Your task to perform on an android device: turn off wifi Image 0: 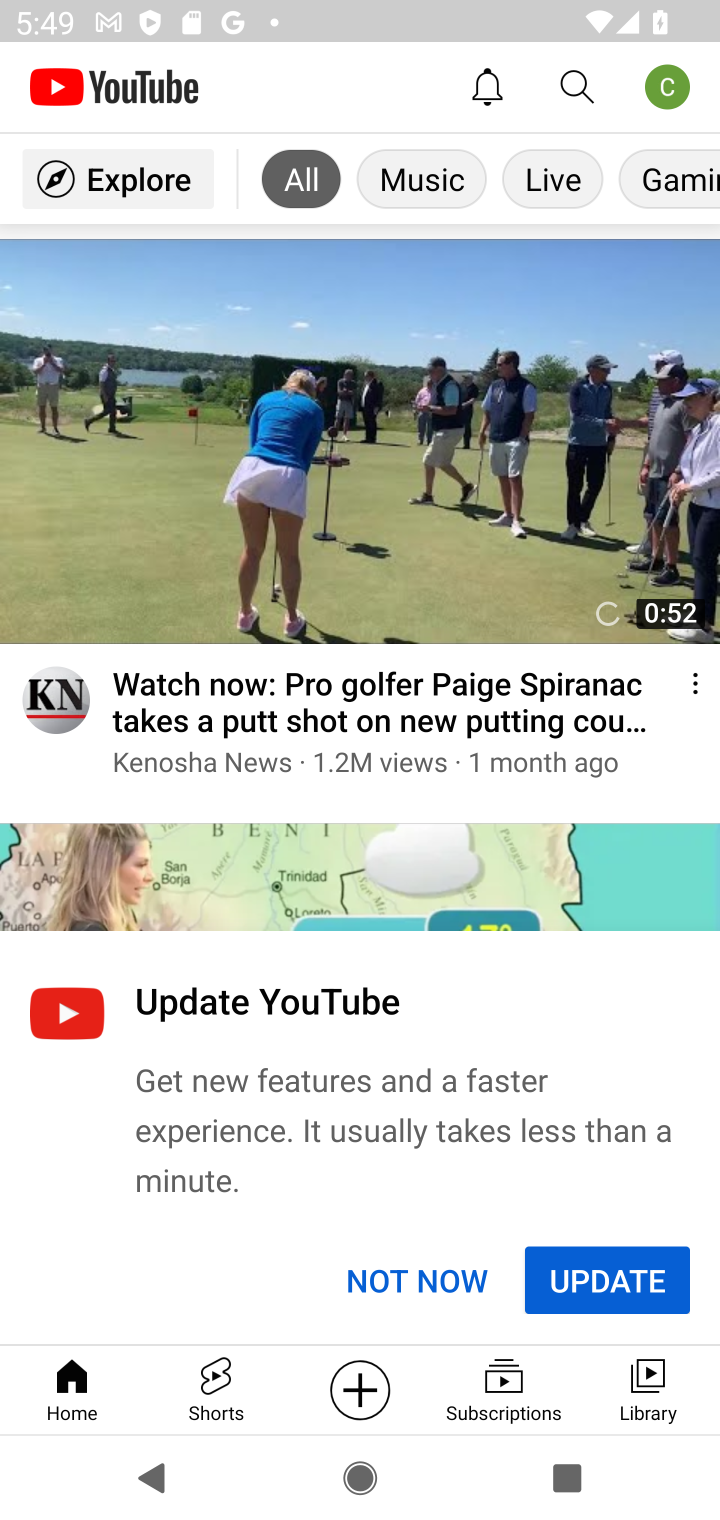
Step 0: press home button
Your task to perform on an android device: turn off wifi Image 1: 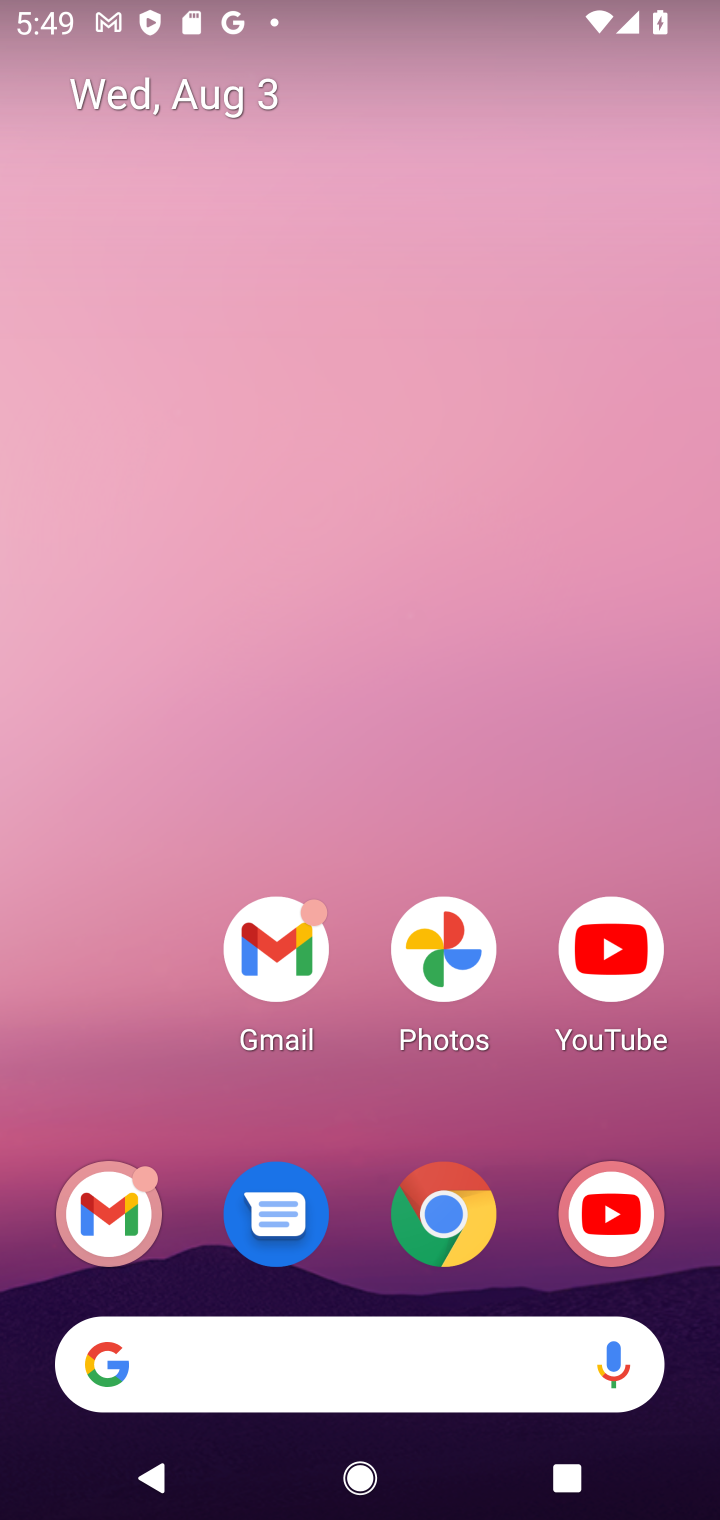
Step 1: drag from (366, 1221) to (442, 63)
Your task to perform on an android device: turn off wifi Image 2: 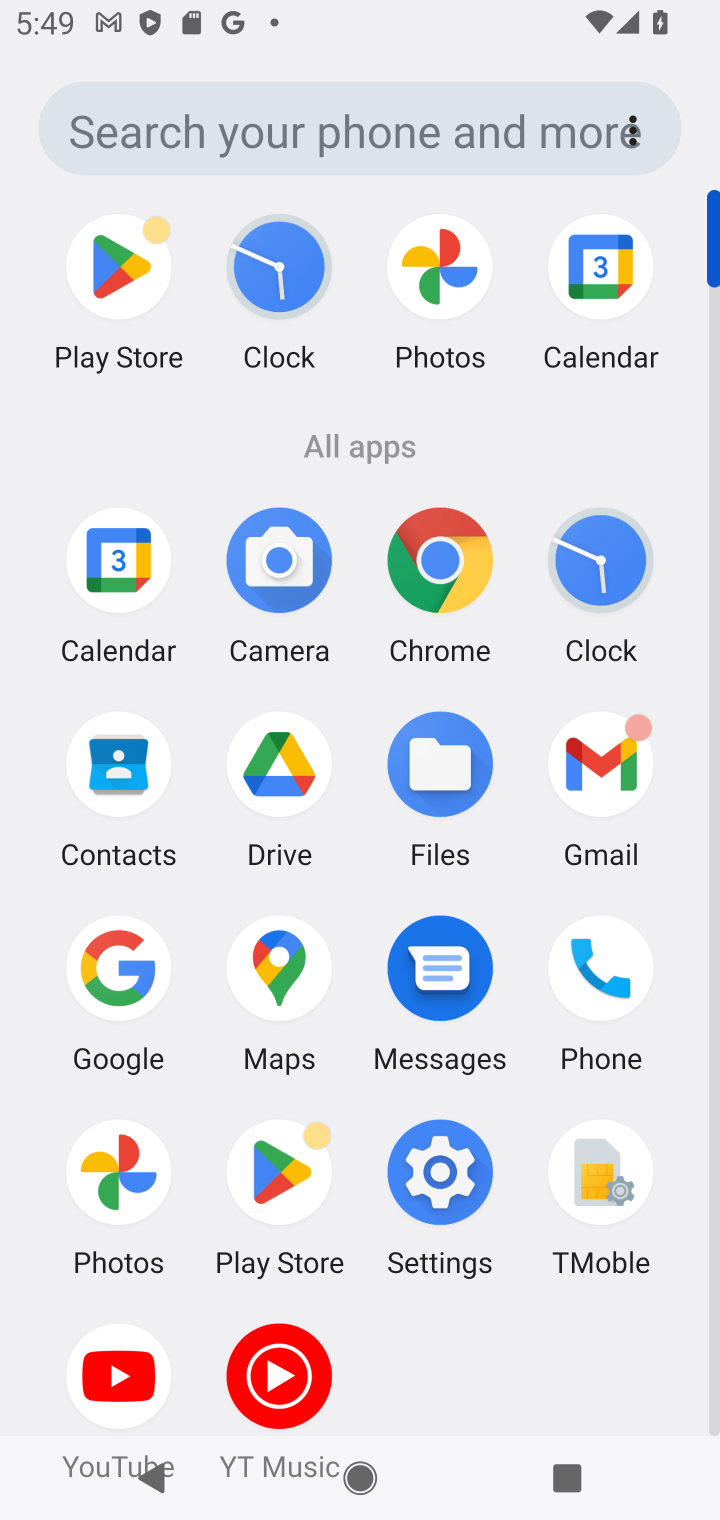
Step 2: click (416, 1146)
Your task to perform on an android device: turn off wifi Image 3: 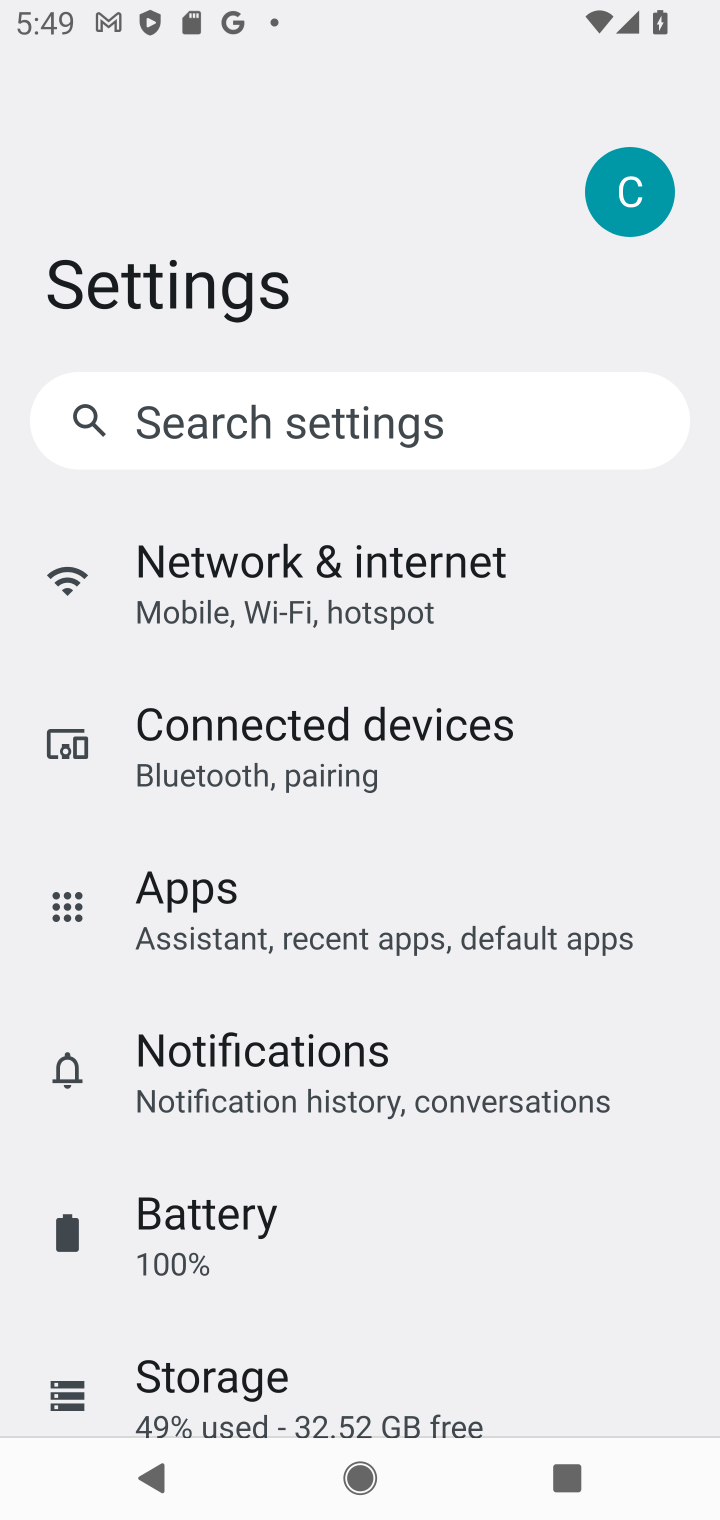
Step 3: click (546, 598)
Your task to perform on an android device: turn off wifi Image 4: 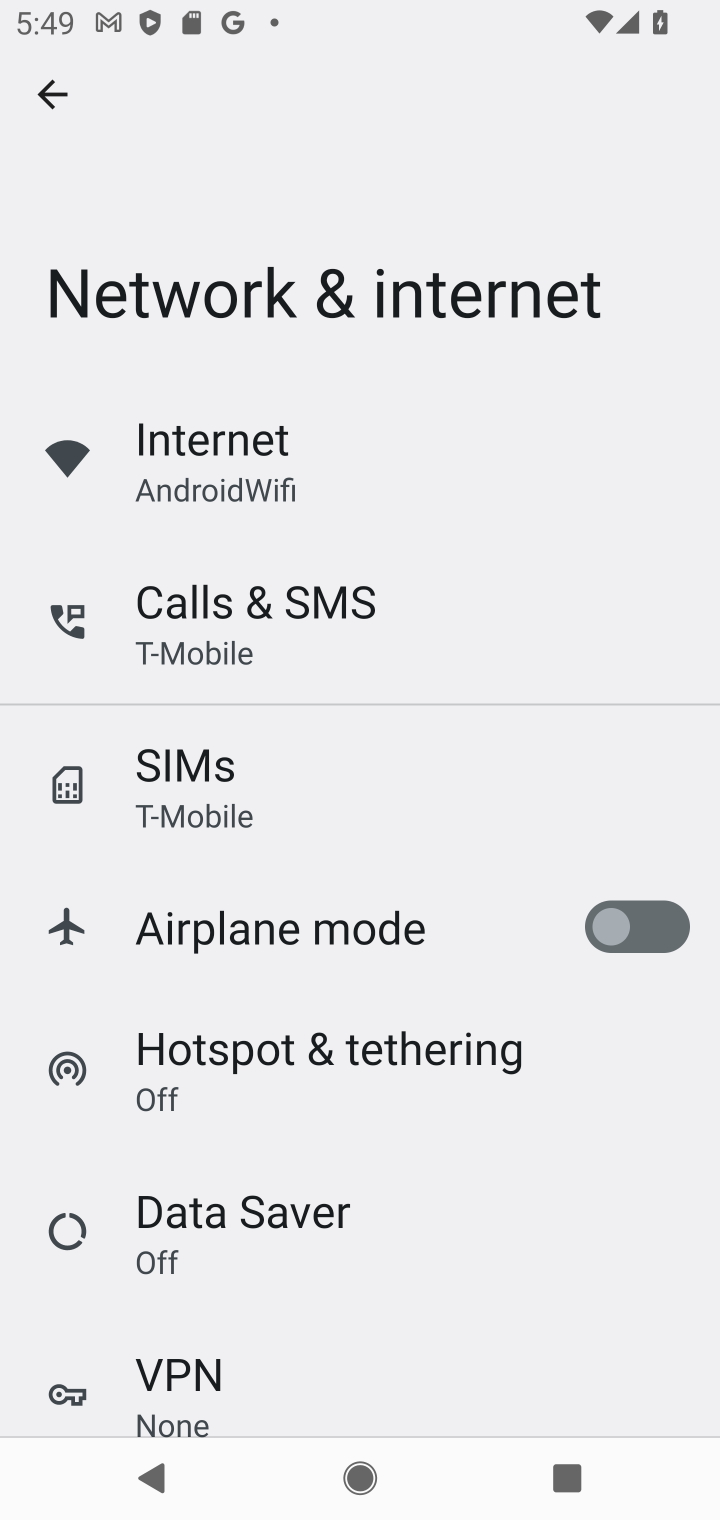
Step 4: click (275, 506)
Your task to perform on an android device: turn off wifi Image 5: 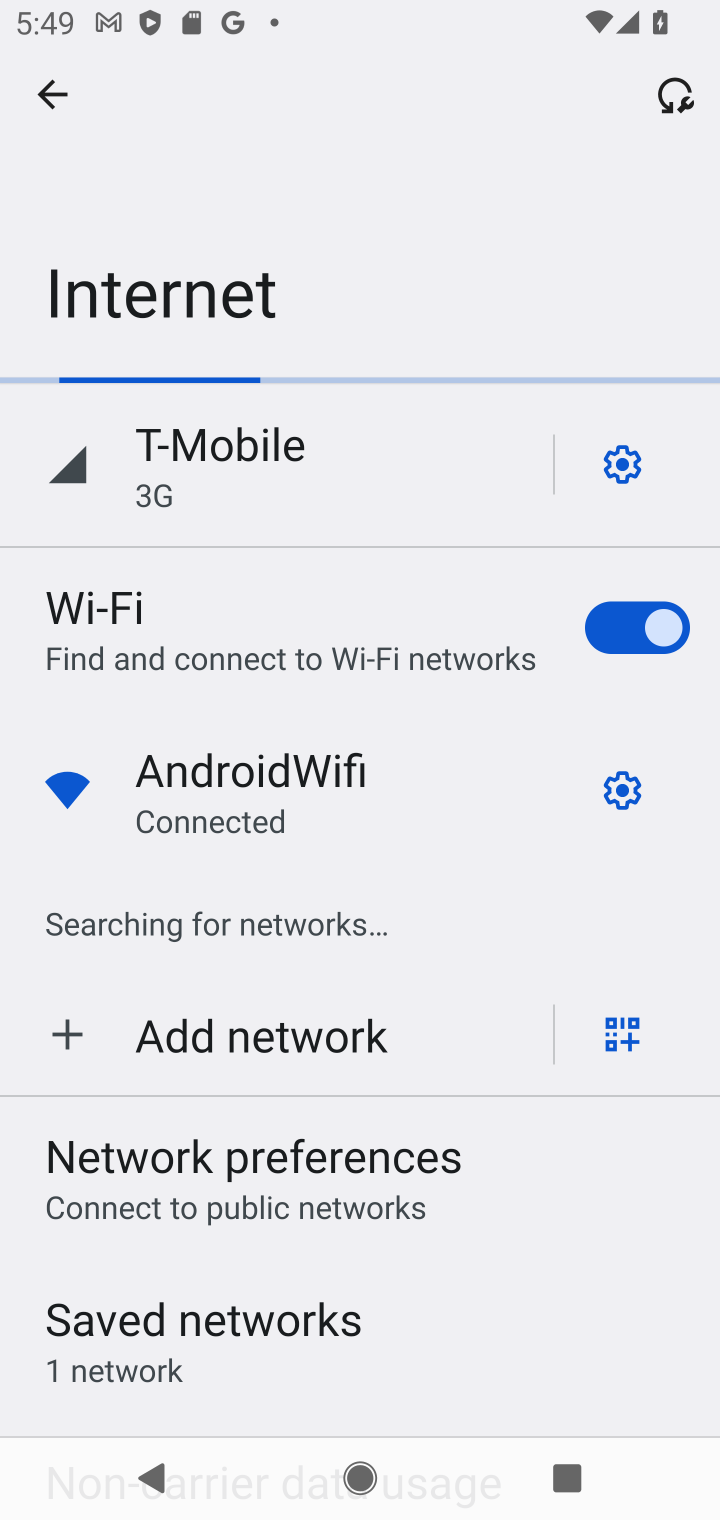
Step 5: click (627, 639)
Your task to perform on an android device: turn off wifi Image 6: 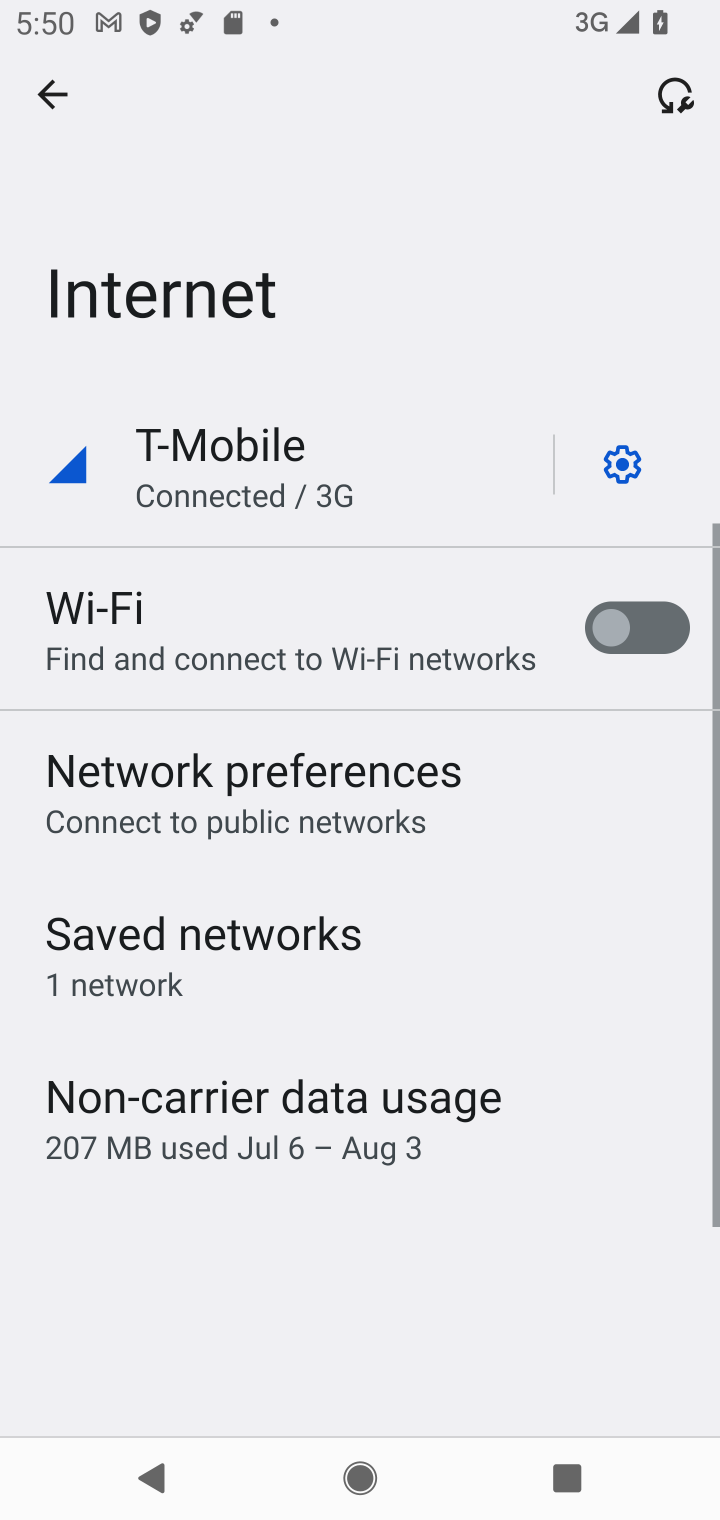
Step 6: task complete